Your task to perform on an android device: set the timer Image 0: 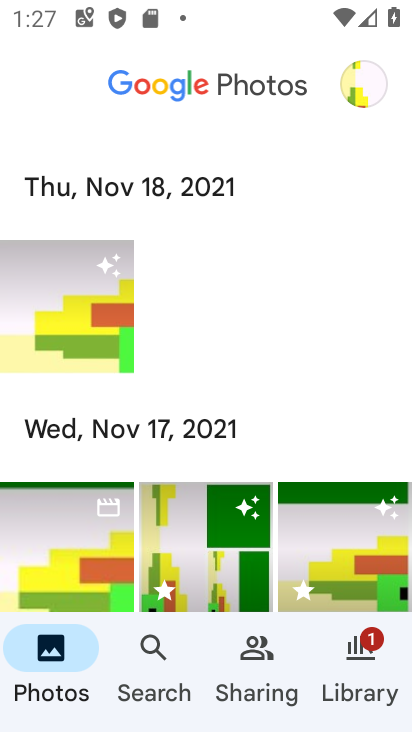
Step 0: press home button
Your task to perform on an android device: set the timer Image 1: 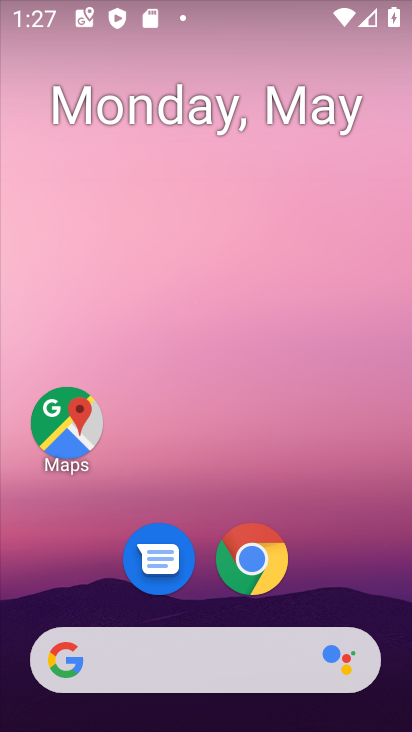
Step 1: drag from (170, 720) to (169, 230)
Your task to perform on an android device: set the timer Image 2: 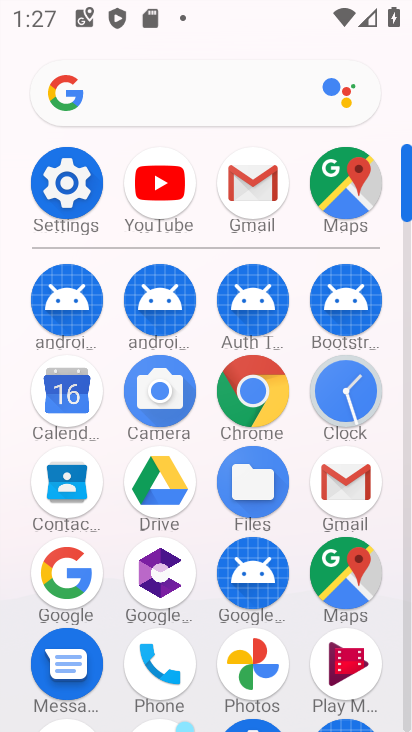
Step 2: click (337, 390)
Your task to perform on an android device: set the timer Image 3: 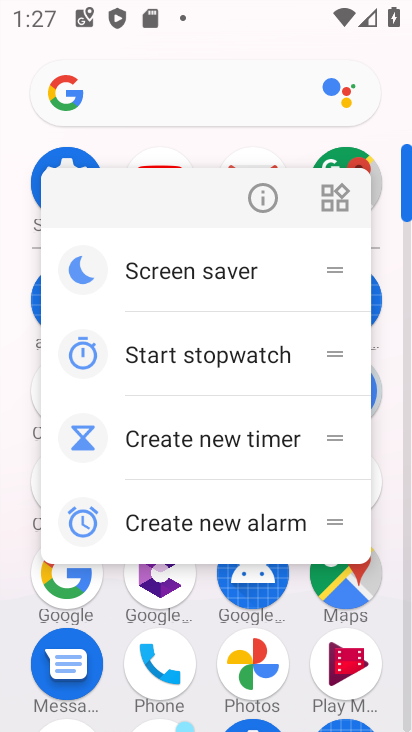
Step 3: click (378, 398)
Your task to perform on an android device: set the timer Image 4: 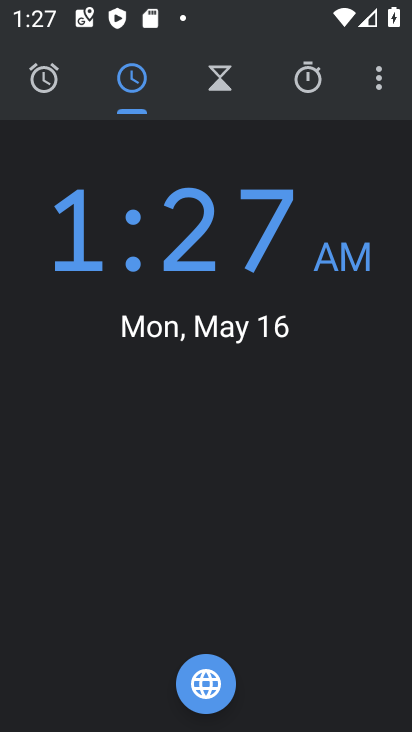
Step 4: click (225, 97)
Your task to perform on an android device: set the timer Image 5: 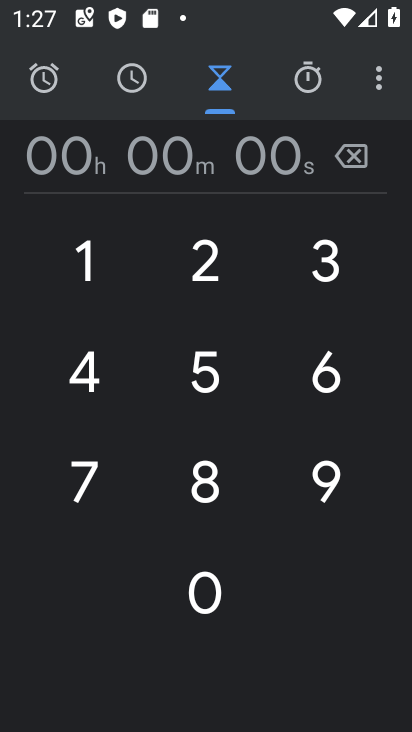
Step 5: click (220, 272)
Your task to perform on an android device: set the timer Image 6: 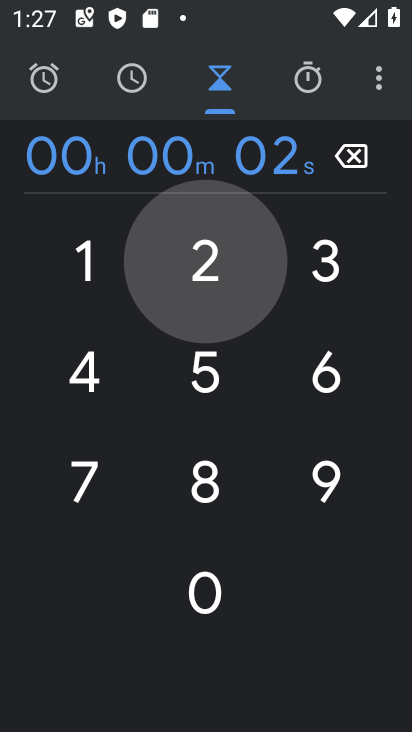
Step 6: click (202, 362)
Your task to perform on an android device: set the timer Image 7: 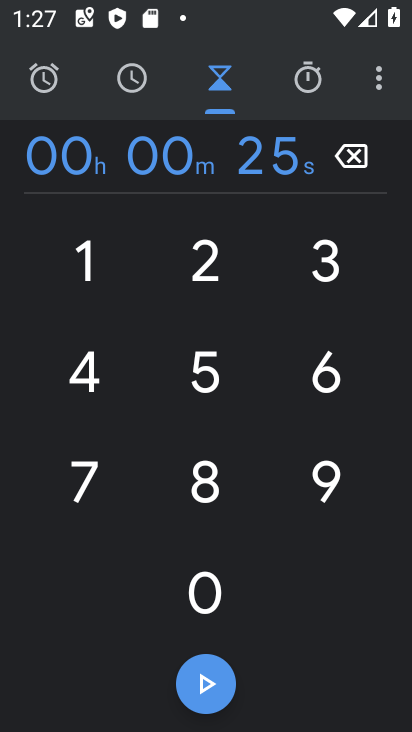
Step 7: click (196, 473)
Your task to perform on an android device: set the timer Image 8: 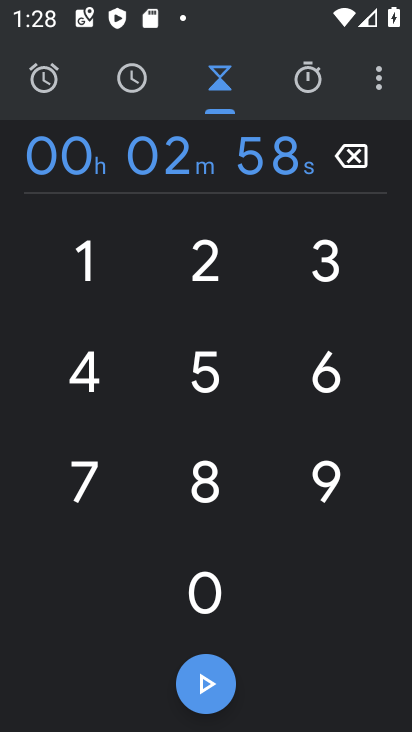
Step 8: click (216, 384)
Your task to perform on an android device: set the timer Image 9: 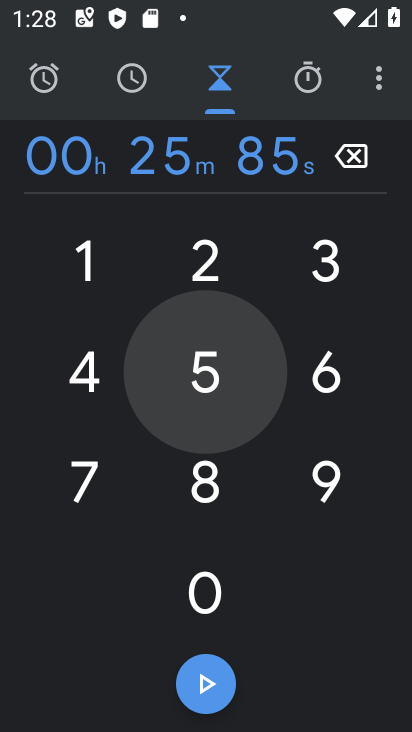
Step 9: click (162, 511)
Your task to perform on an android device: set the timer Image 10: 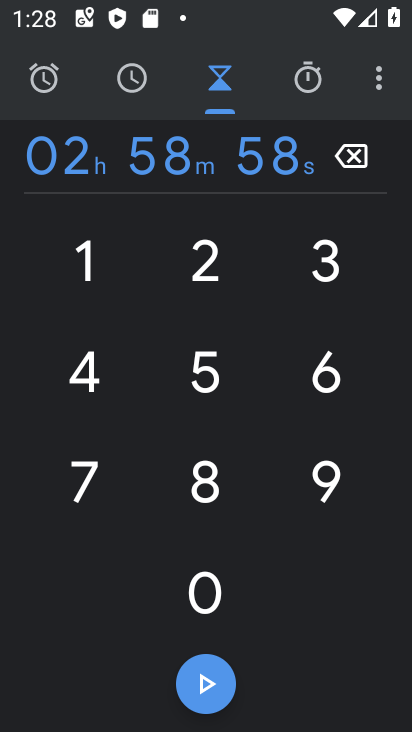
Step 10: click (327, 488)
Your task to perform on an android device: set the timer Image 11: 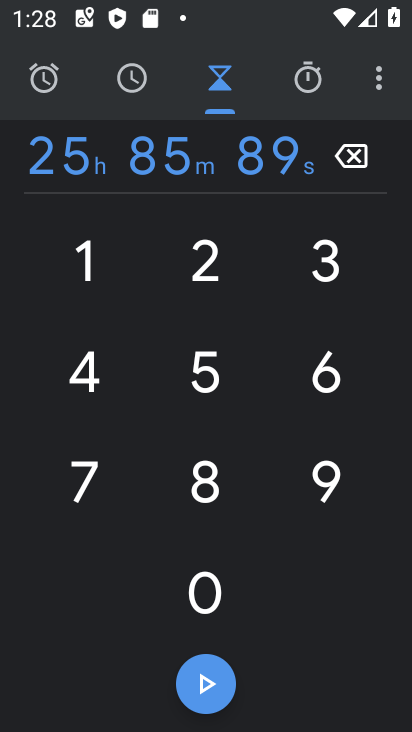
Step 11: task complete